Your task to perform on an android device: turn on airplane mode Image 0: 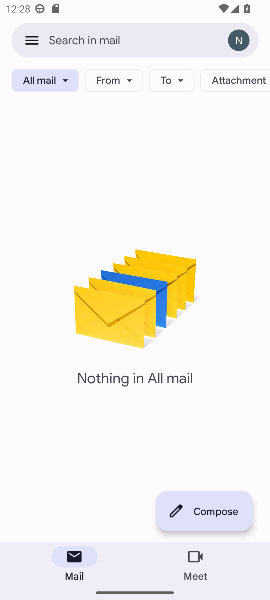
Step 0: press home button
Your task to perform on an android device: turn on airplane mode Image 1: 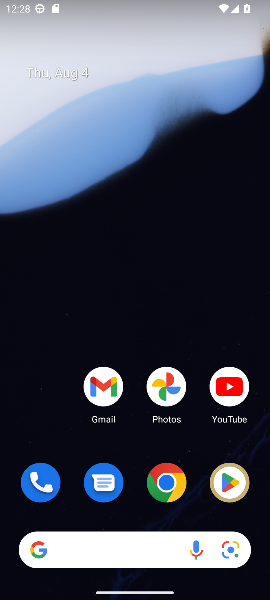
Step 1: drag from (140, 437) to (168, 83)
Your task to perform on an android device: turn on airplane mode Image 2: 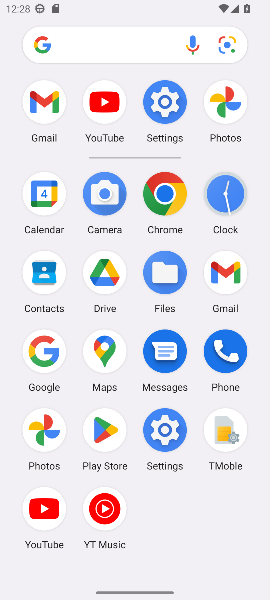
Step 2: click (169, 86)
Your task to perform on an android device: turn on airplane mode Image 3: 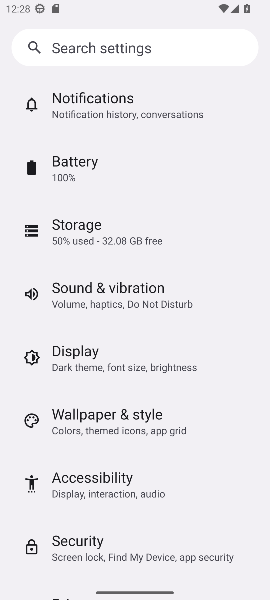
Step 3: drag from (119, 155) to (121, 501)
Your task to perform on an android device: turn on airplane mode Image 4: 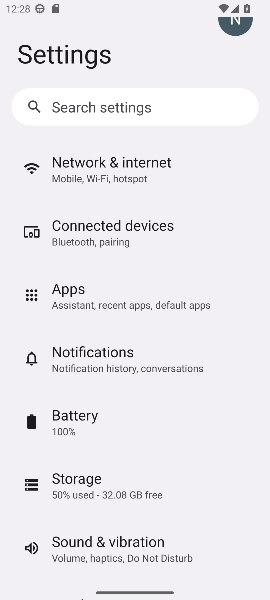
Step 4: click (134, 155)
Your task to perform on an android device: turn on airplane mode Image 5: 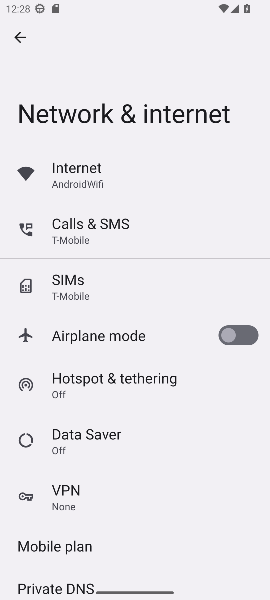
Step 5: click (133, 177)
Your task to perform on an android device: turn on airplane mode Image 6: 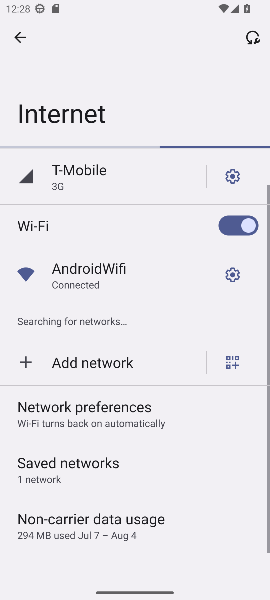
Step 6: click (20, 42)
Your task to perform on an android device: turn on airplane mode Image 7: 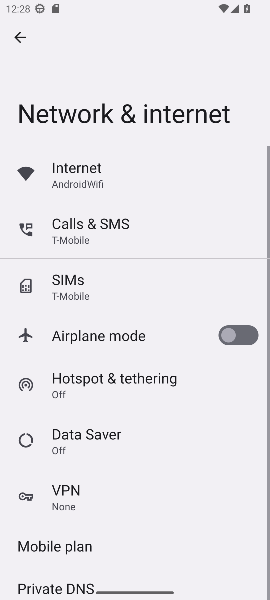
Step 7: click (242, 340)
Your task to perform on an android device: turn on airplane mode Image 8: 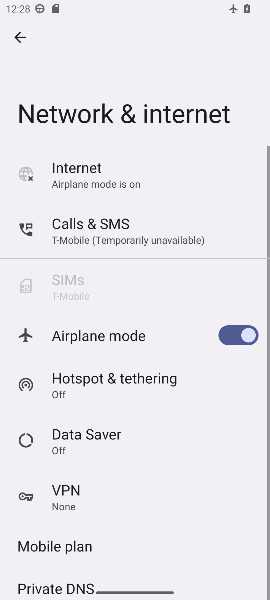
Step 8: task complete